Your task to perform on an android device: open app "Mercado Libre" (install if not already installed) Image 0: 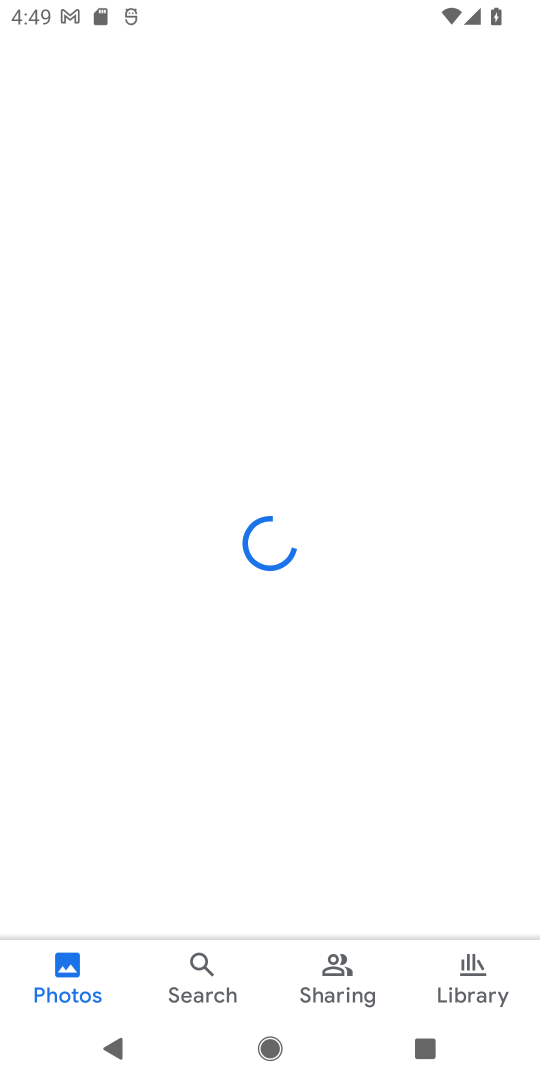
Step 0: press home button
Your task to perform on an android device: open app "Mercado Libre" (install if not already installed) Image 1: 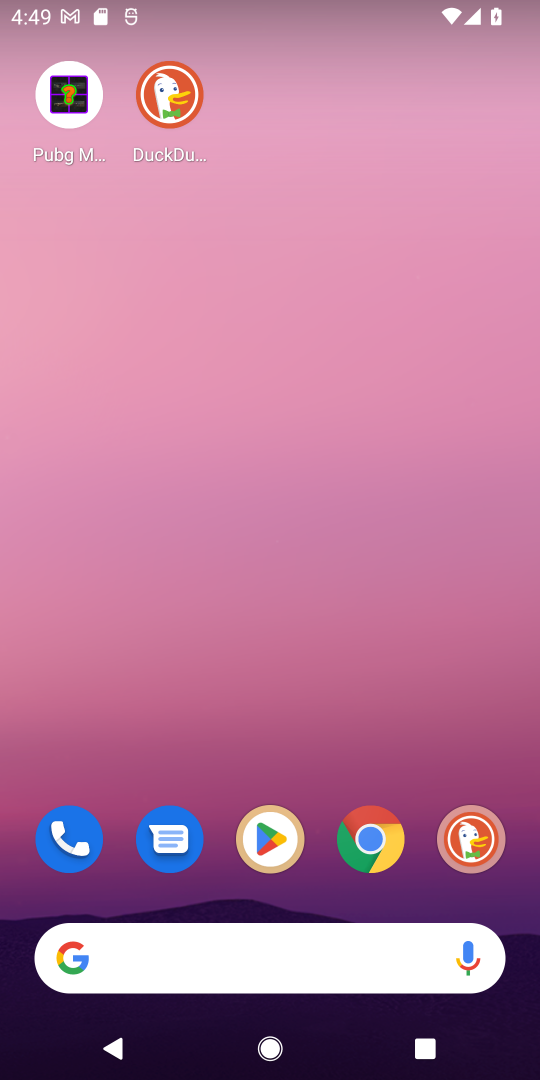
Step 1: click (274, 836)
Your task to perform on an android device: open app "Mercado Libre" (install if not already installed) Image 2: 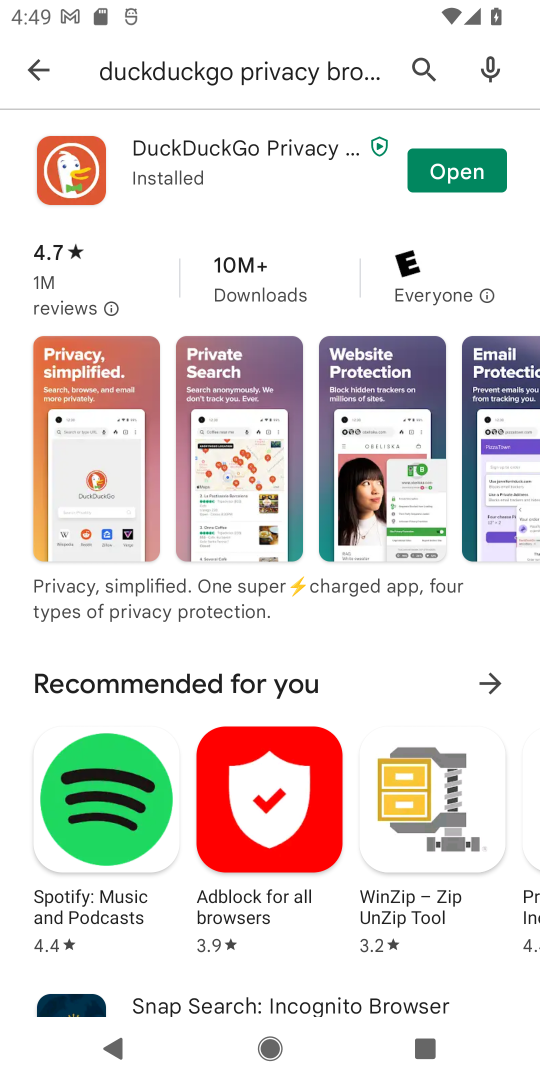
Step 2: click (415, 48)
Your task to perform on an android device: open app "Mercado Libre" (install if not already installed) Image 3: 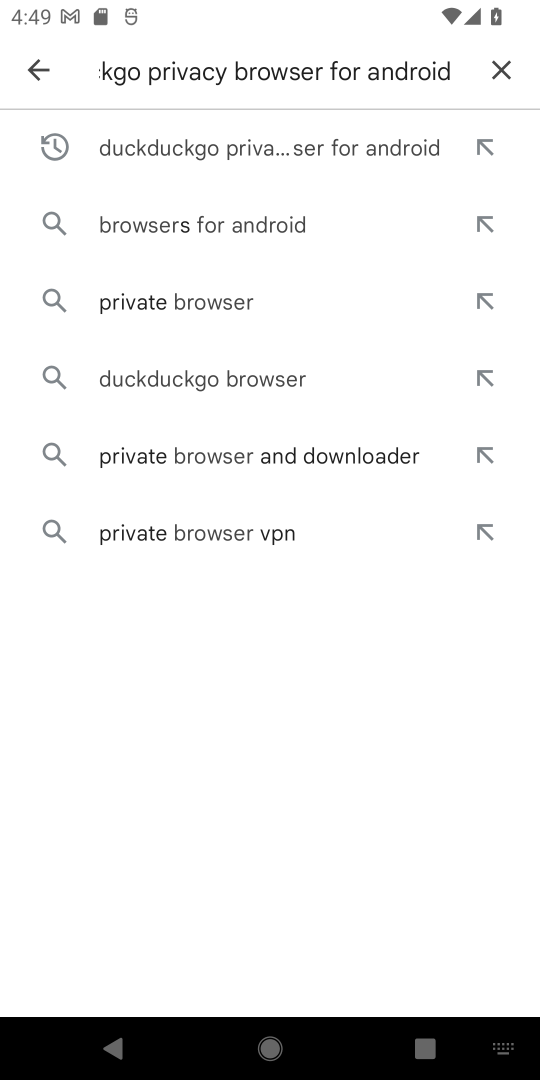
Step 3: click (505, 62)
Your task to perform on an android device: open app "Mercado Libre" (install if not already installed) Image 4: 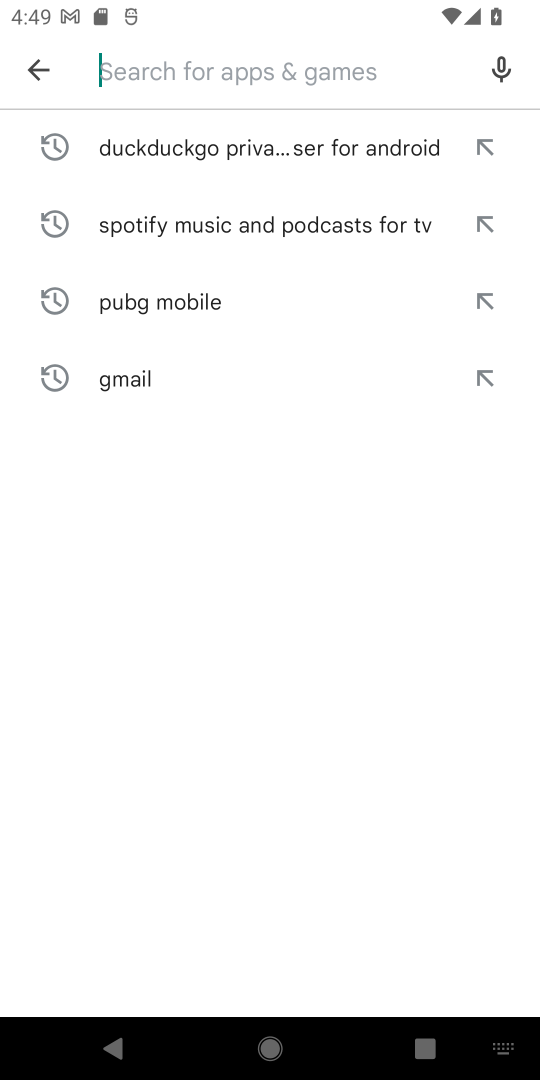
Step 4: type "Mercado Libre"
Your task to perform on an android device: open app "Mercado Libre" (install if not already installed) Image 5: 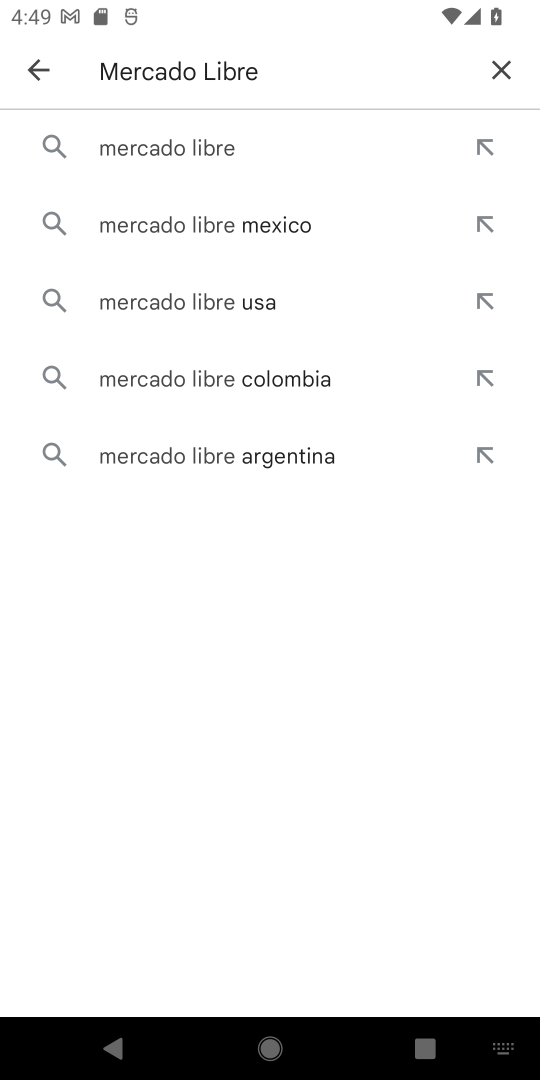
Step 5: click (171, 163)
Your task to perform on an android device: open app "Mercado Libre" (install if not already installed) Image 6: 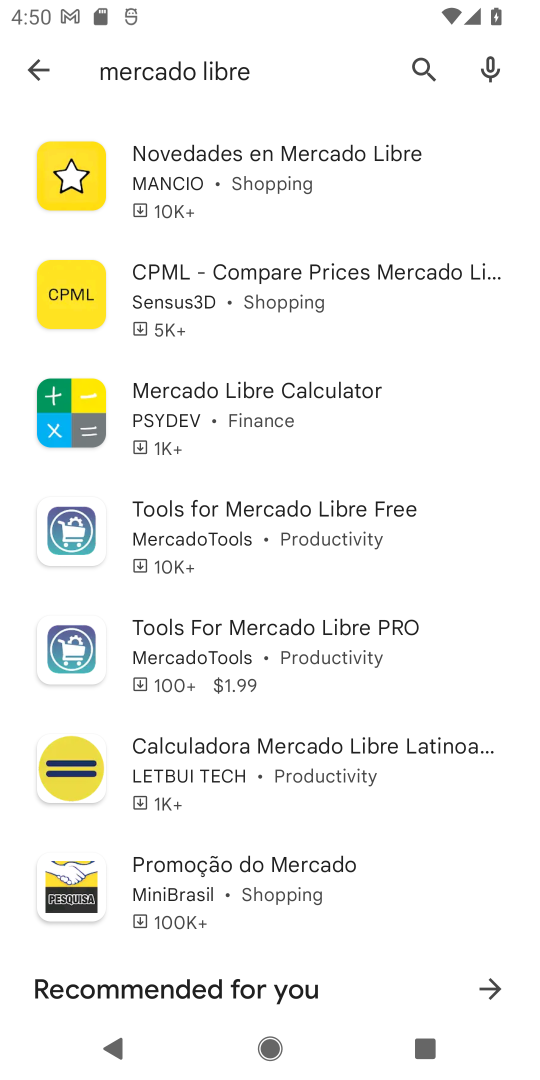
Step 6: task complete